Your task to perform on an android device: Open Google Image 0: 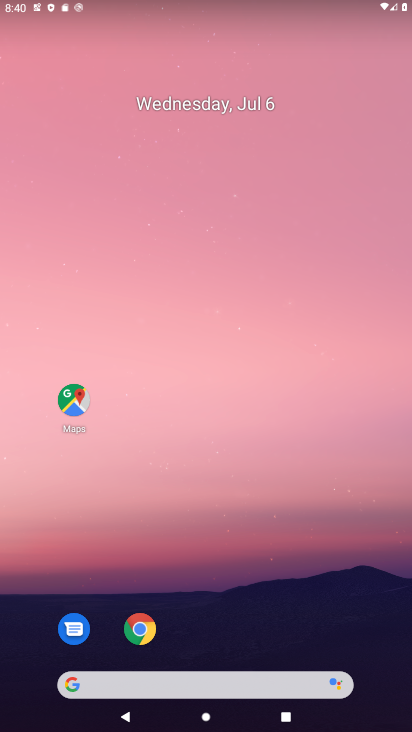
Step 0: drag from (232, 606) to (185, 103)
Your task to perform on an android device: Open Google Image 1: 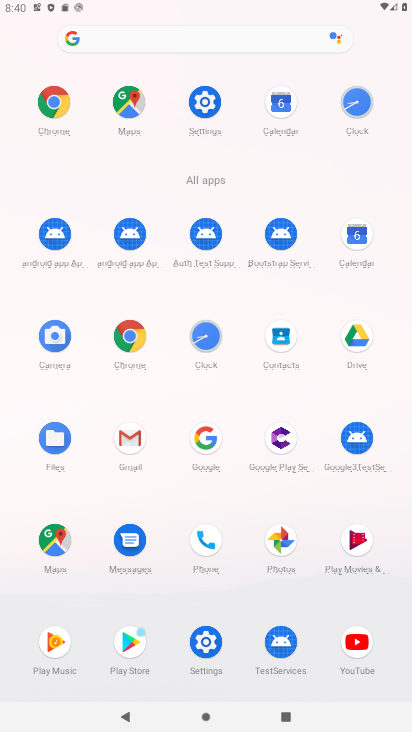
Step 1: click (206, 436)
Your task to perform on an android device: Open Google Image 2: 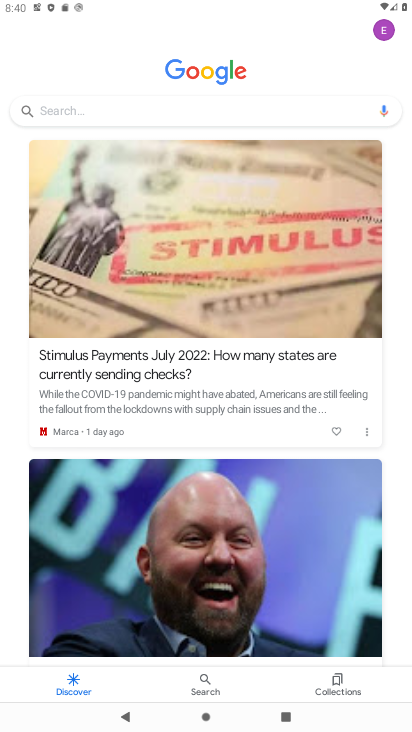
Step 2: task complete